Your task to perform on an android device: toggle airplane mode Image 0: 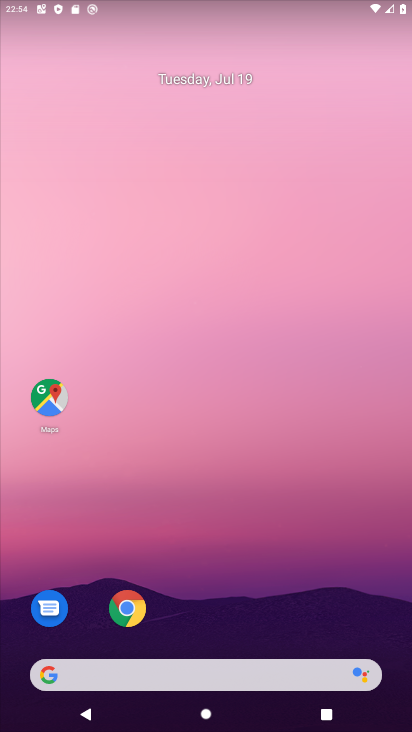
Step 0: drag from (312, 617) to (254, 66)
Your task to perform on an android device: toggle airplane mode Image 1: 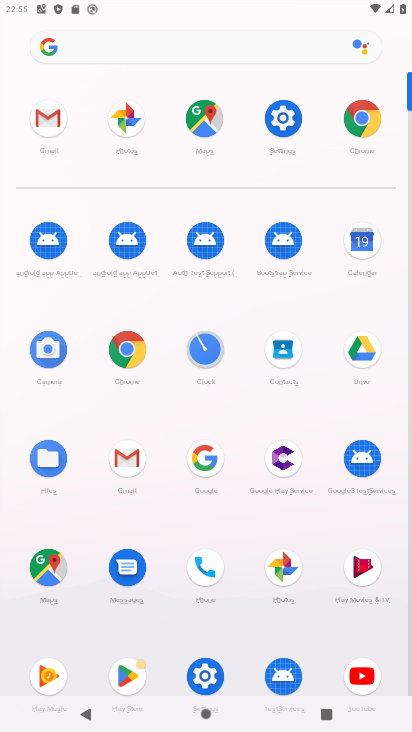
Step 1: click (287, 117)
Your task to perform on an android device: toggle airplane mode Image 2: 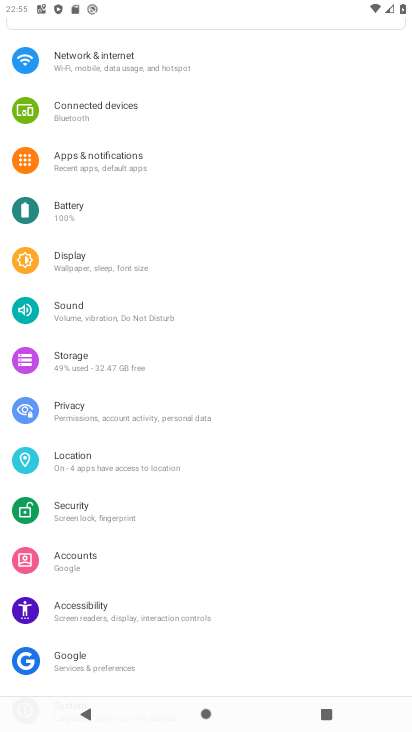
Step 2: click (110, 58)
Your task to perform on an android device: toggle airplane mode Image 3: 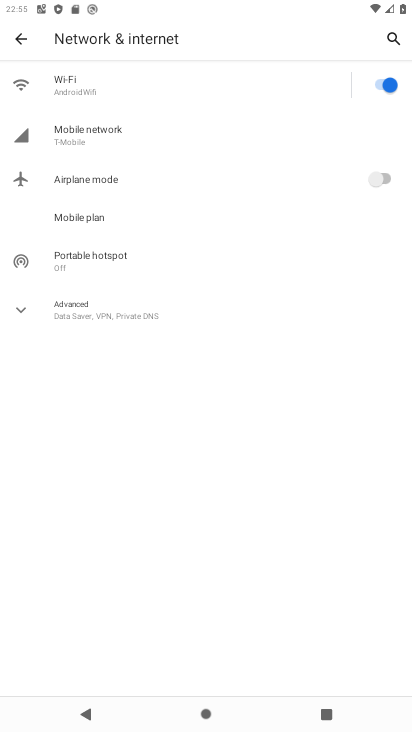
Step 3: click (386, 168)
Your task to perform on an android device: toggle airplane mode Image 4: 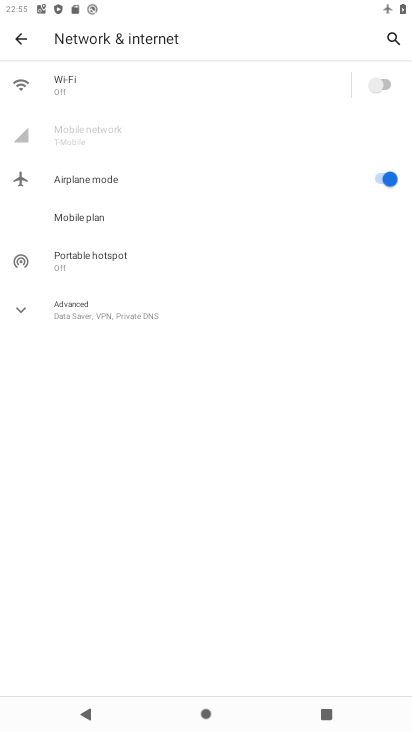
Step 4: task complete